Your task to perform on an android device: Do I have any events today? Image 0: 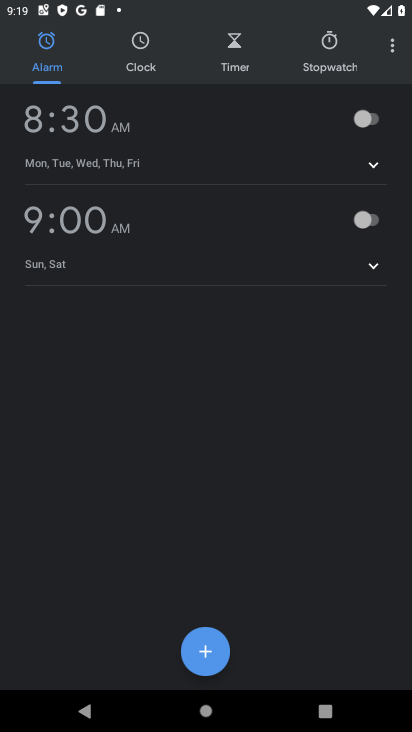
Step 0: press home button
Your task to perform on an android device: Do I have any events today? Image 1: 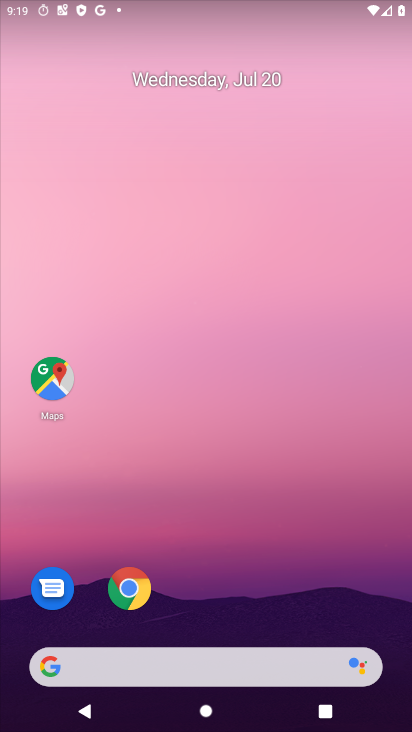
Step 1: drag from (338, 658) to (336, 159)
Your task to perform on an android device: Do I have any events today? Image 2: 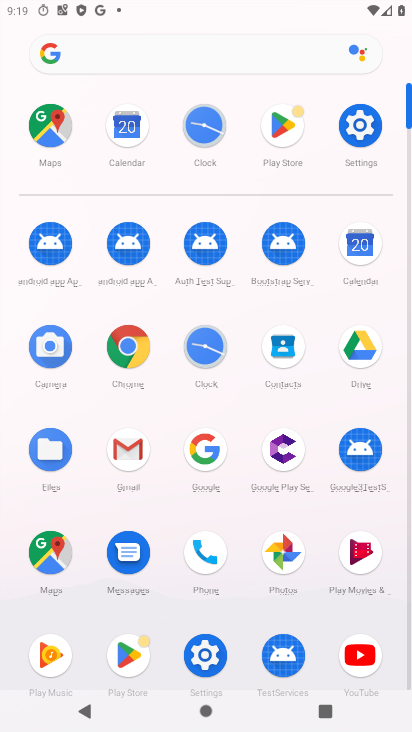
Step 2: click (364, 250)
Your task to perform on an android device: Do I have any events today? Image 3: 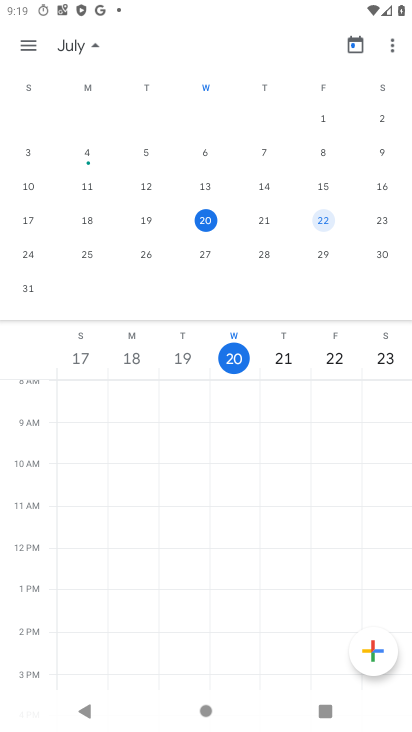
Step 3: click (267, 220)
Your task to perform on an android device: Do I have any events today? Image 4: 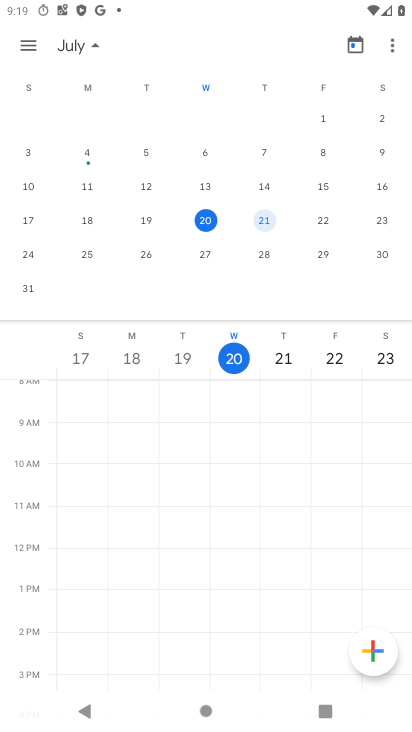
Step 4: task complete